Your task to perform on an android device: Empty the shopping cart on ebay. Search for razer blade on ebay, select the first entry, and add it to the cart. Image 0: 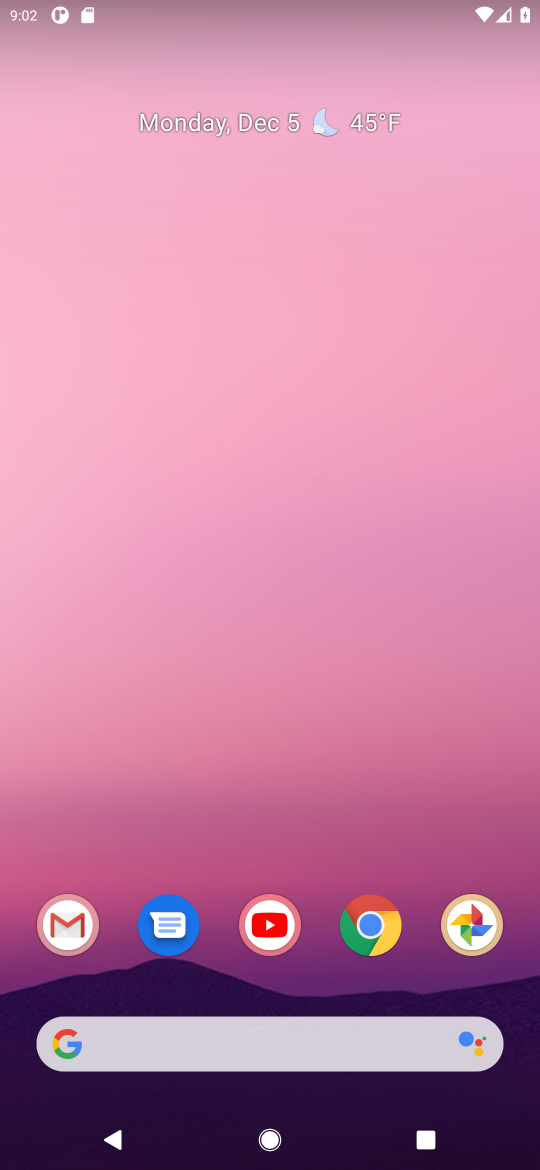
Step 0: click (375, 931)
Your task to perform on an android device: Empty the shopping cart on ebay. Search for razer blade on ebay, select the first entry, and add it to the cart. Image 1: 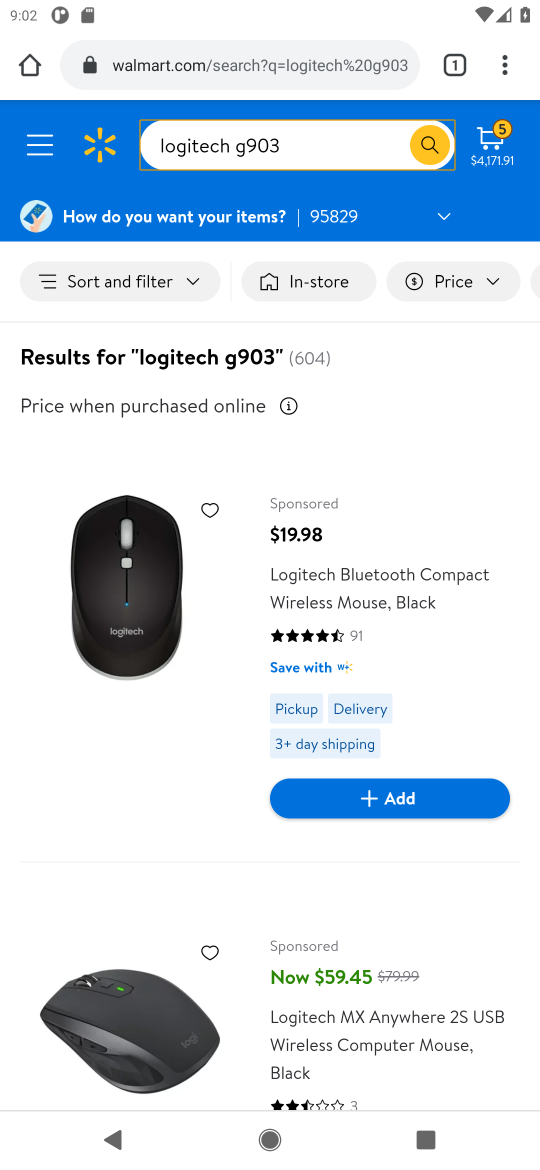
Step 1: click (216, 69)
Your task to perform on an android device: Empty the shopping cart on ebay. Search for razer blade on ebay, select the first entry, and add it to the cart. Image 2: 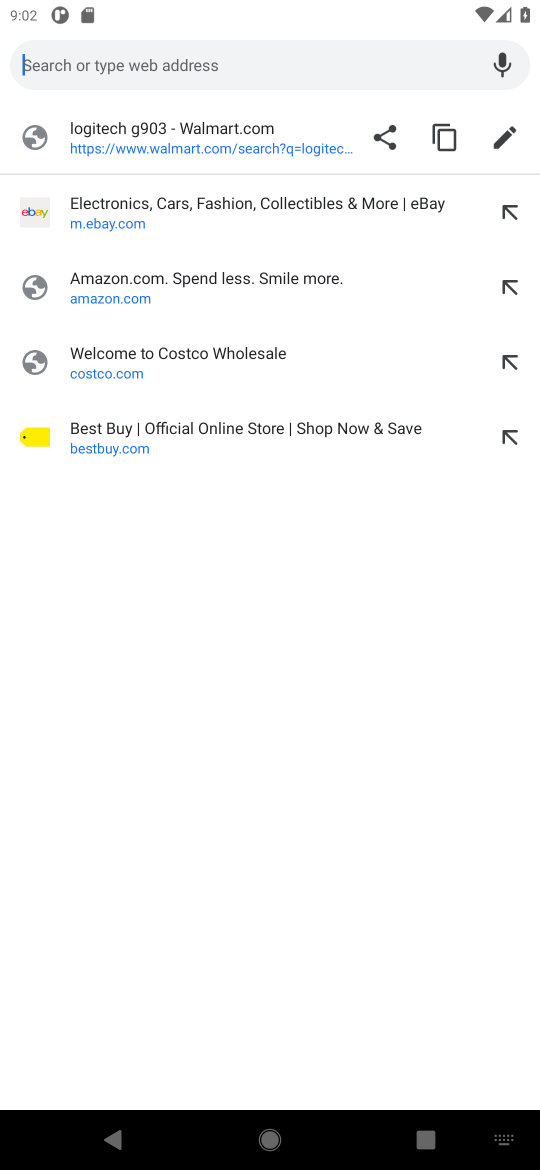
Step 2: click (96, 223)
Your task to perform on an android device: Empty the shopping cart on ebay. Search for razer blade on ebay, select the first entry, and add it to the cart. Image 3: 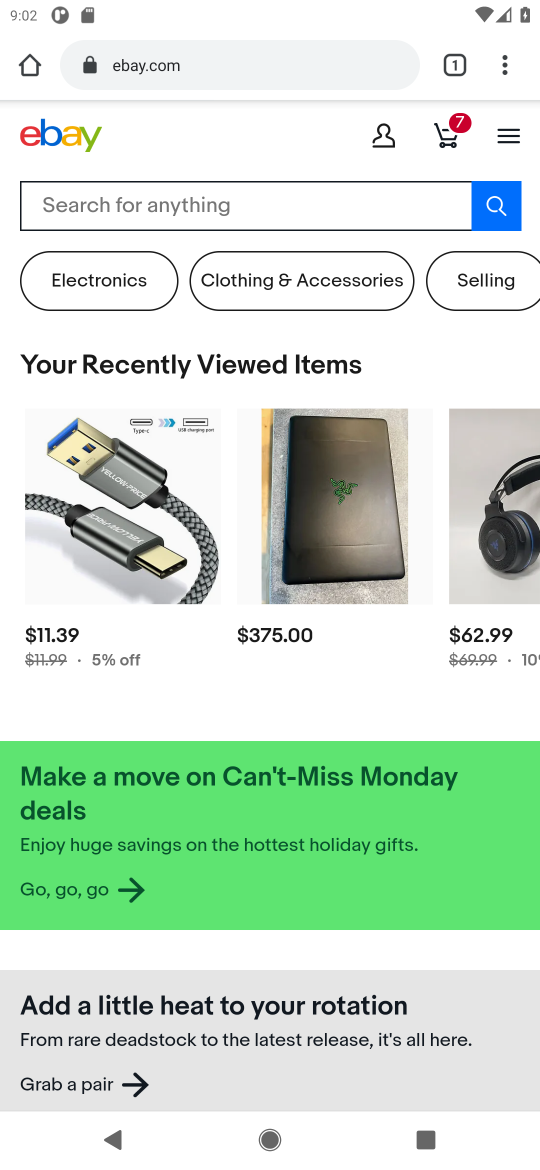
Step 3: click (441, 143)
Your task to perform on an android device: Empty the shopping cart on ebay. Search for razer blade on ebay, select the first entry, and add it to the cart. Image 4: 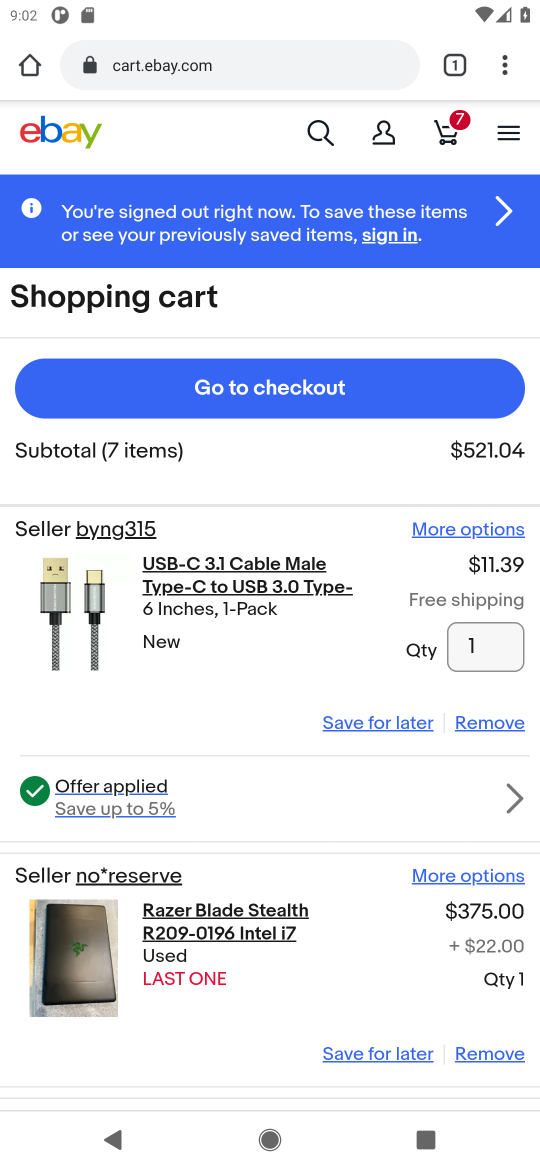
Step 4: click (478, 726)
Your task to perform on an android device: Empty the shopping cart on ebay. Search for razer blade on ebay, select the first entry, and add it to the cart. Image 5: 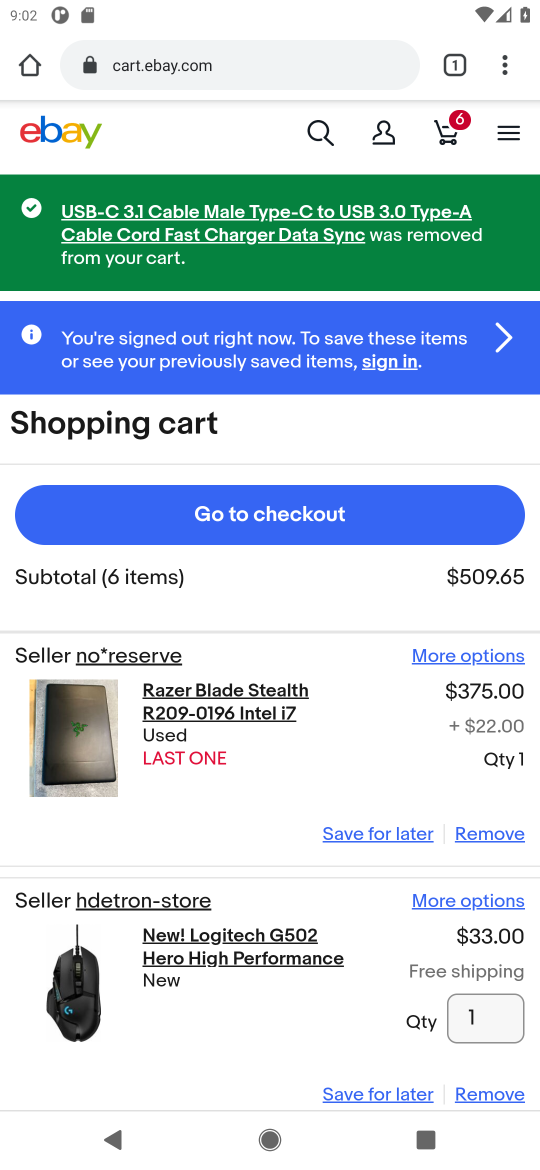
Step 5: click (473, 830)
Your task to perform on an android device: Empty the shopping cart on ebay. Search for razer blade on ebay, select the first entry, and add it to the cart. Image 6: 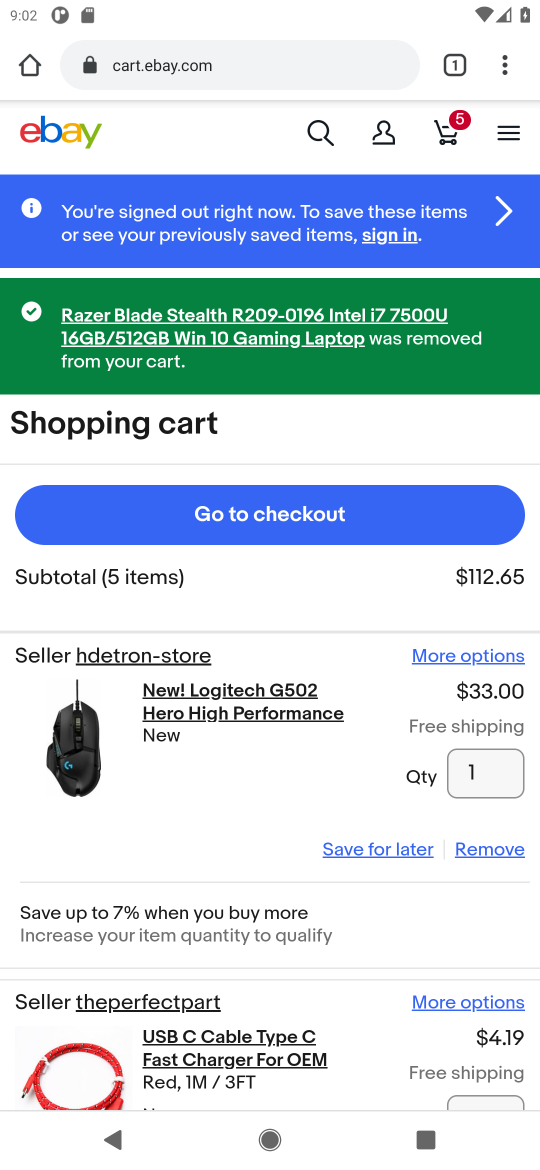
Step 6: click (487, 846)
Your task to perform on an android device: Empty the shopping cart on ebay. Search for razer blade on ebay, select the first entry, and add it to the cart. Image 7: 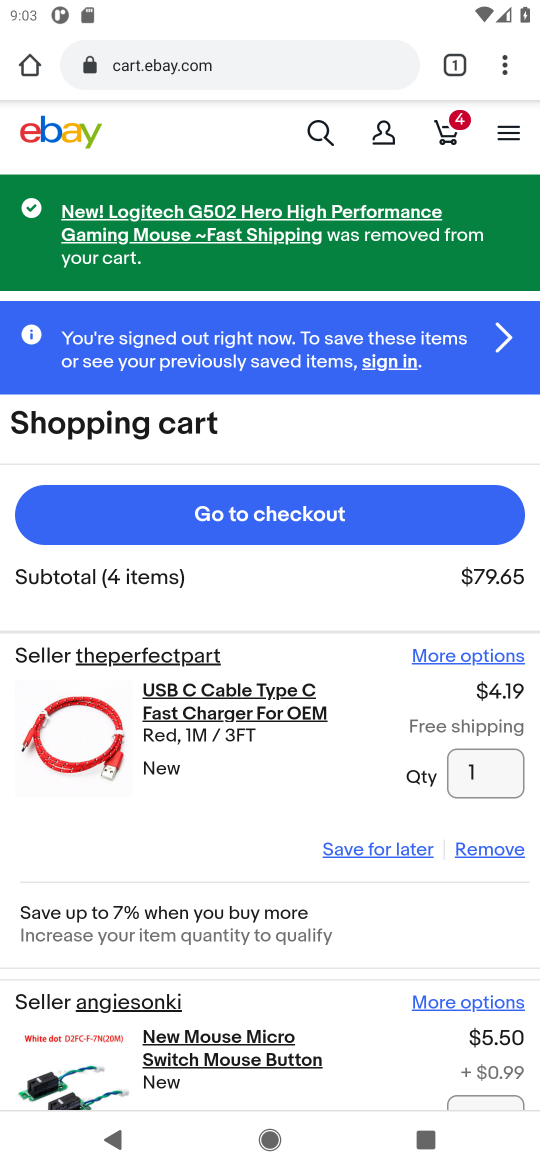
Step 7: click (487, 846)
Your task to perform on an android device: Empty the shopping cart on ebay. Search for razer blade on ebay, select the first entry, and add it to the cart. Image 8: 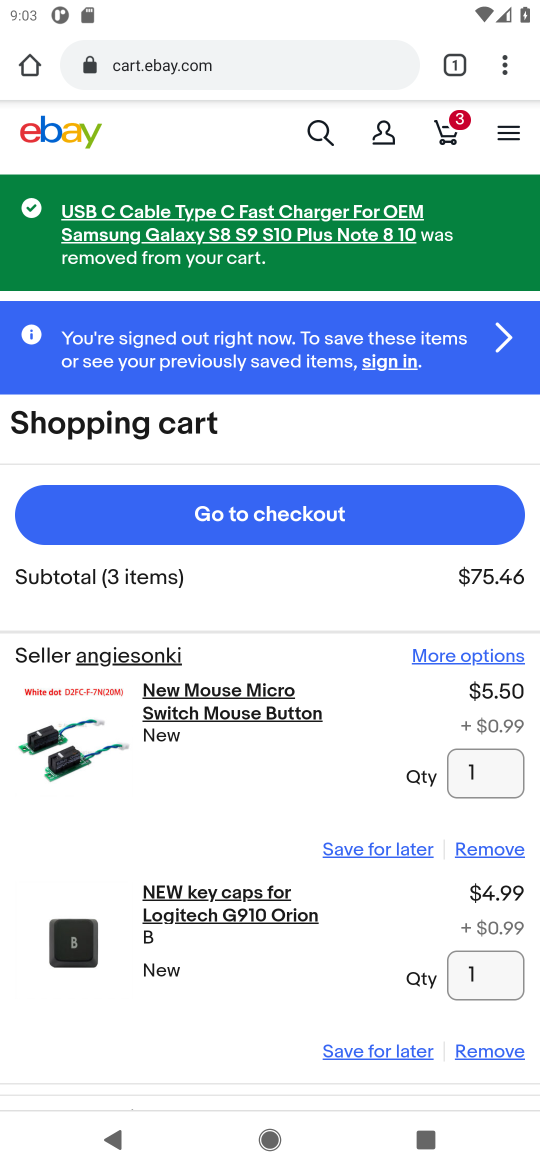
Step 8: click (487, 846)
Your task to perform on an android device: Empty the shopping cart on ebay. Search for razer blade on ebay, select the first entry, and add it to the cart. Image 9: 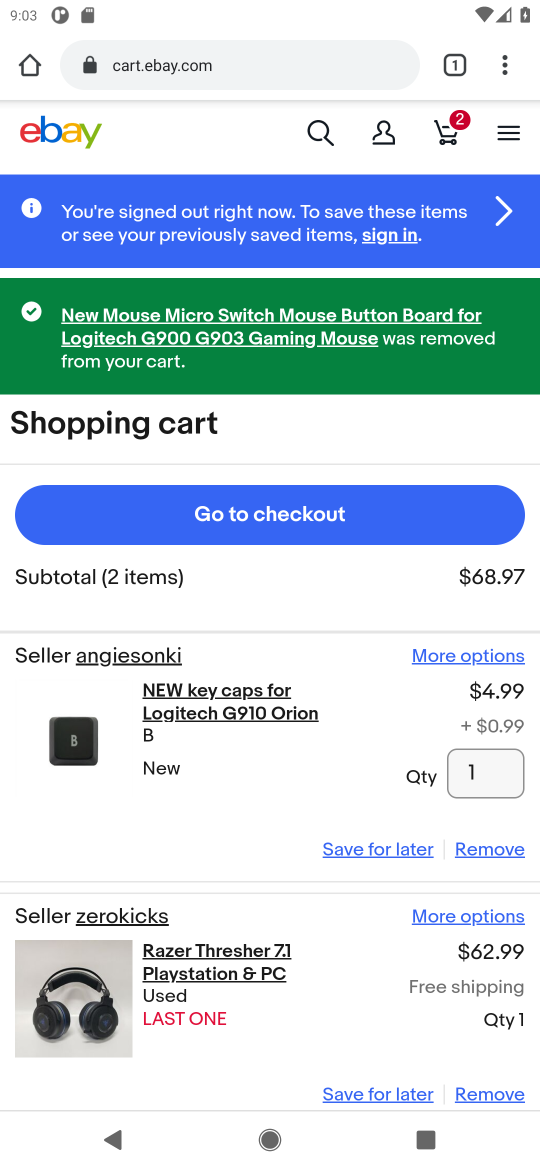
Step 9: click (487, 846)
Your task to perform on an android device: Empty the shopping cart on ebay. Search for razer blade on ebay, select the first entry, and add it to the cart. Image 10: 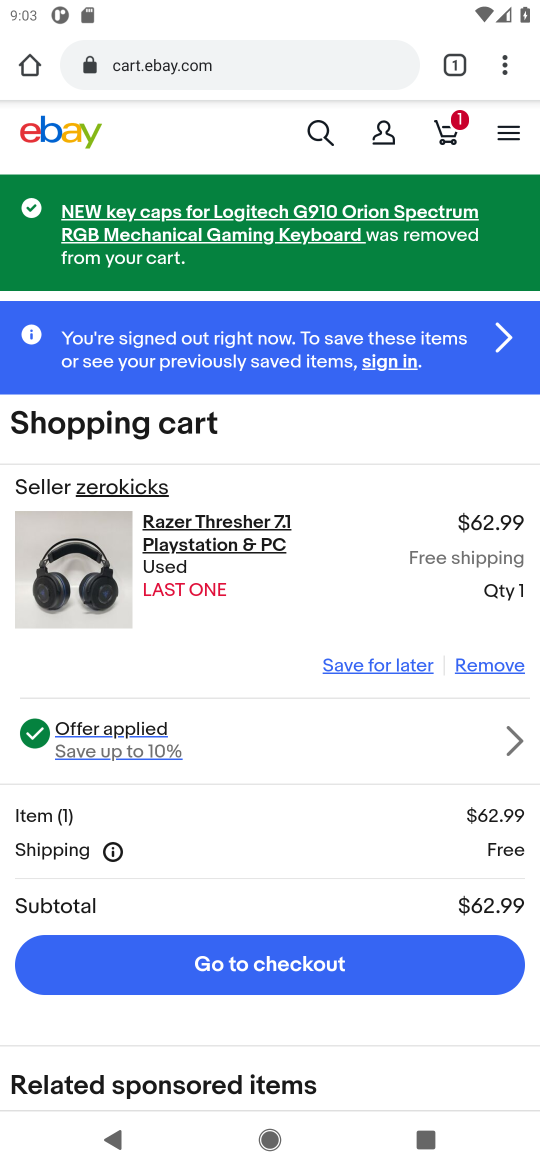
Step 10: click (496, 662)
Your task to perform on an android device: Empty the shopping cart on ebay. Search for razer blade on ebay, select the first entry, and add it to the cart. Image 11: 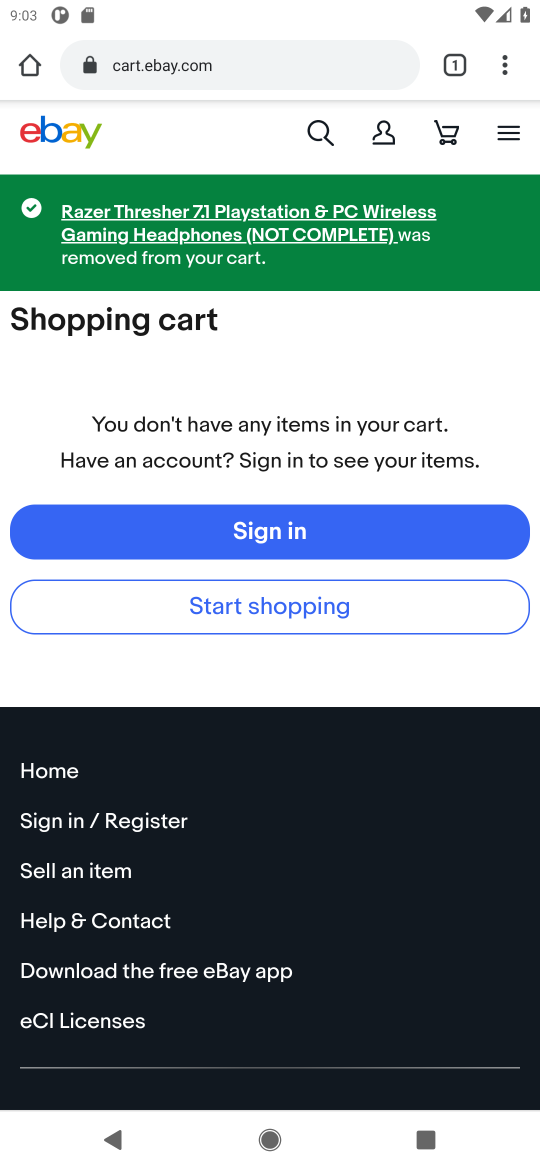
Step 11: click (321, 136)
Your task to perform on an android device: Empty the shopping cart on ebay. Search for razer blade on ebay, select the first entry, and add it to the cart. Image 12: 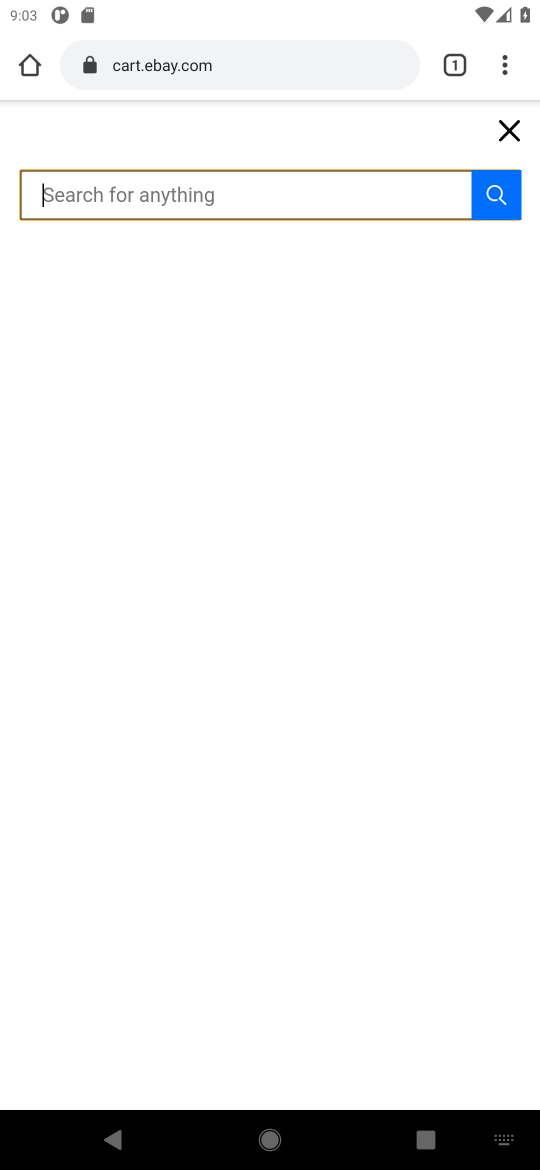
Step 12: type "razer blade"
Your task to perform on an android device: Empty the shopping cart on ebay. Search for razer blade on ebay, select the first entry, and add it to the cart. Image 13: 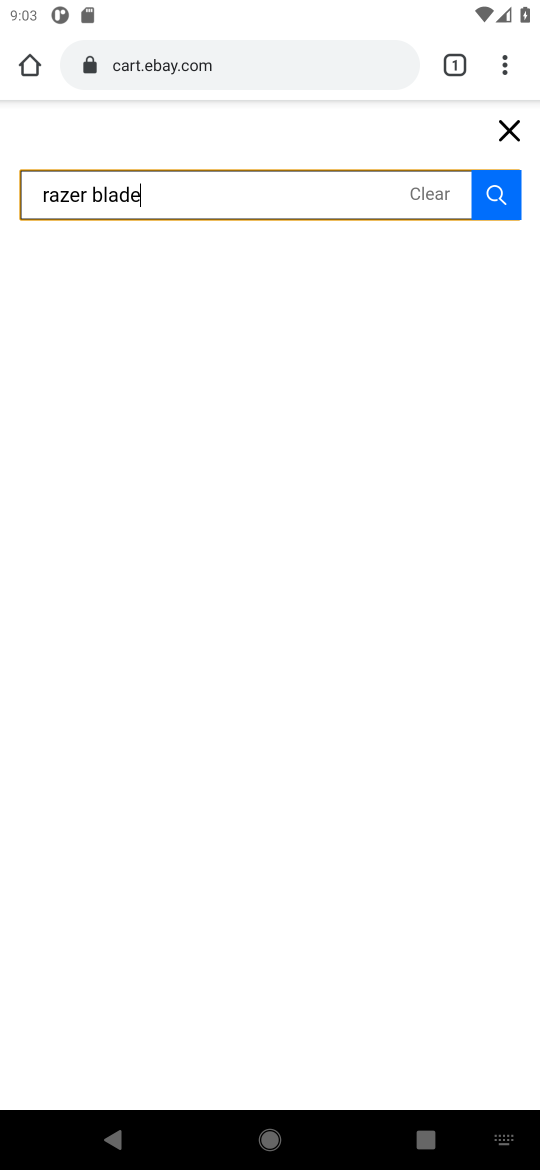
Step 13: click (497, 192)
Your task to perform on an android device: Empty the shopping cart on ebay. Search for razer blade on ebay, select the first entry, and add it to the cart. Image 14: 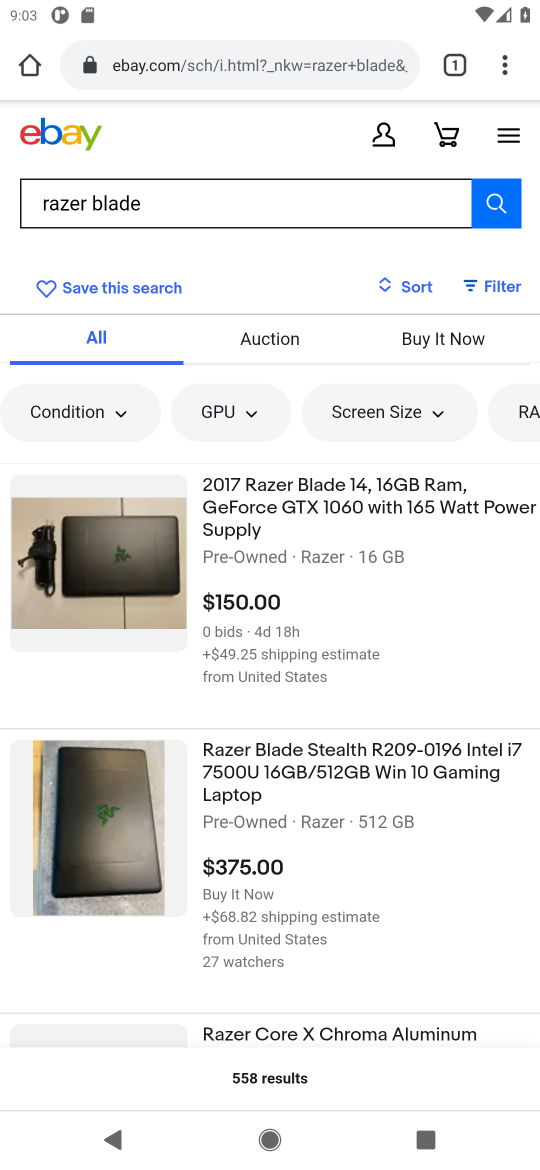
Step 14: click (250, 524)
Your task to perform on an android device: Empty the shopping cart on ebay. Search for razer blade on ebay, select the first entry, and add it to the cart. Image 15: 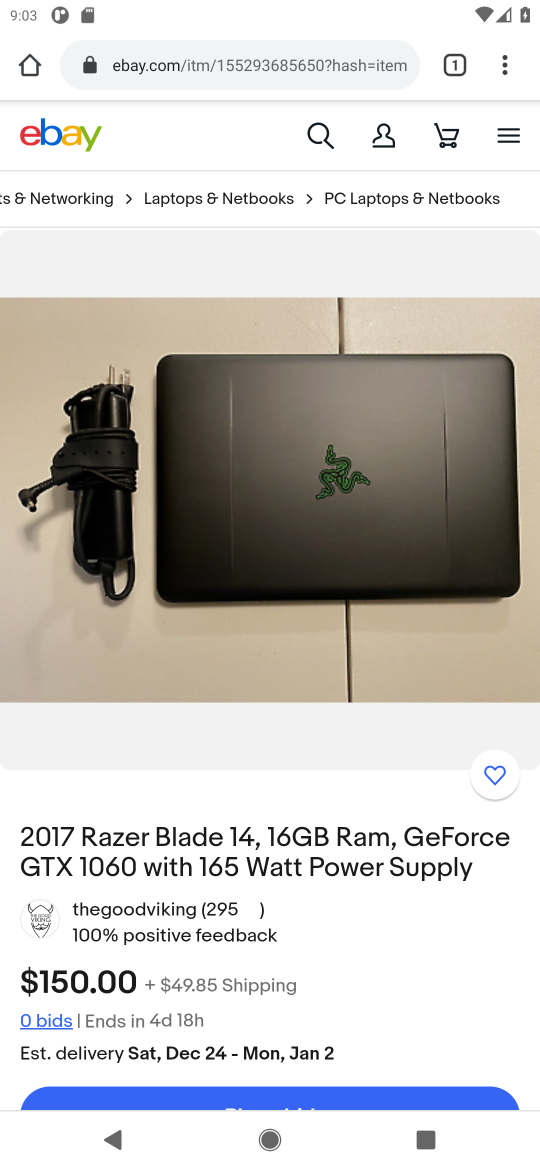
Step 15: task complete